Your task to perform on an android device: Do I have any events today? Image 0: 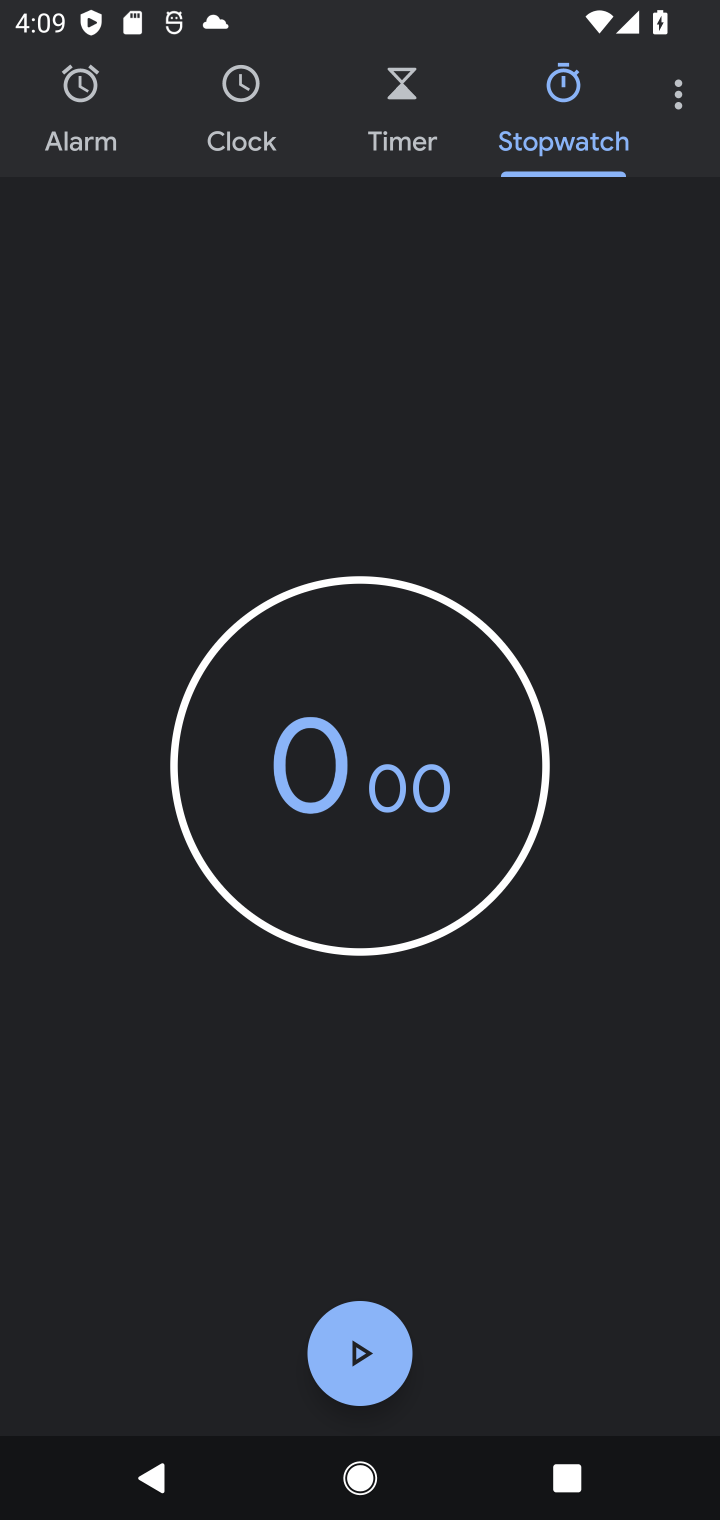
Step 0: press home button
Your task to perform on an android device: Do I have any events today? Image 1: 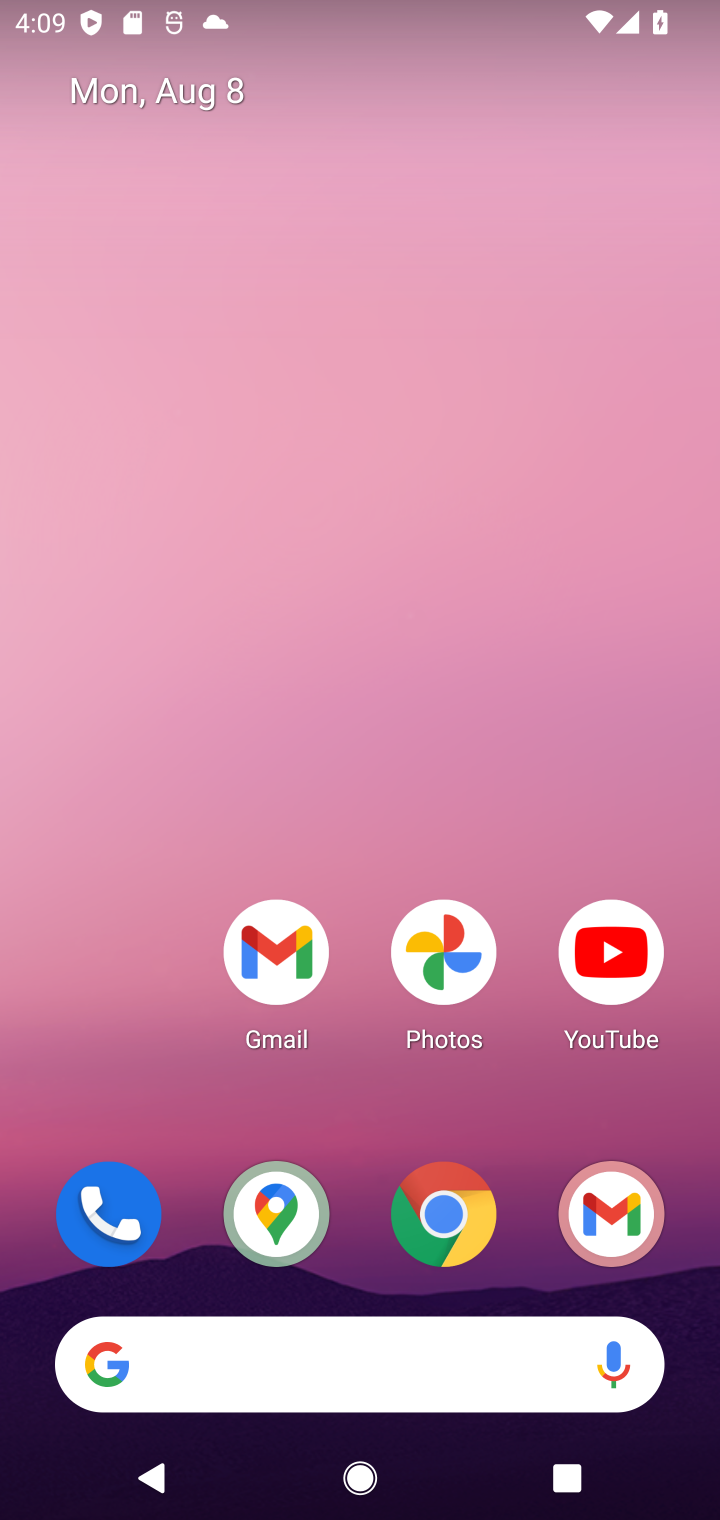
Step 1: drag from (356, 1292) to (359, 481)
Your task to perform on an android device: Do I have any events today? Image 2: 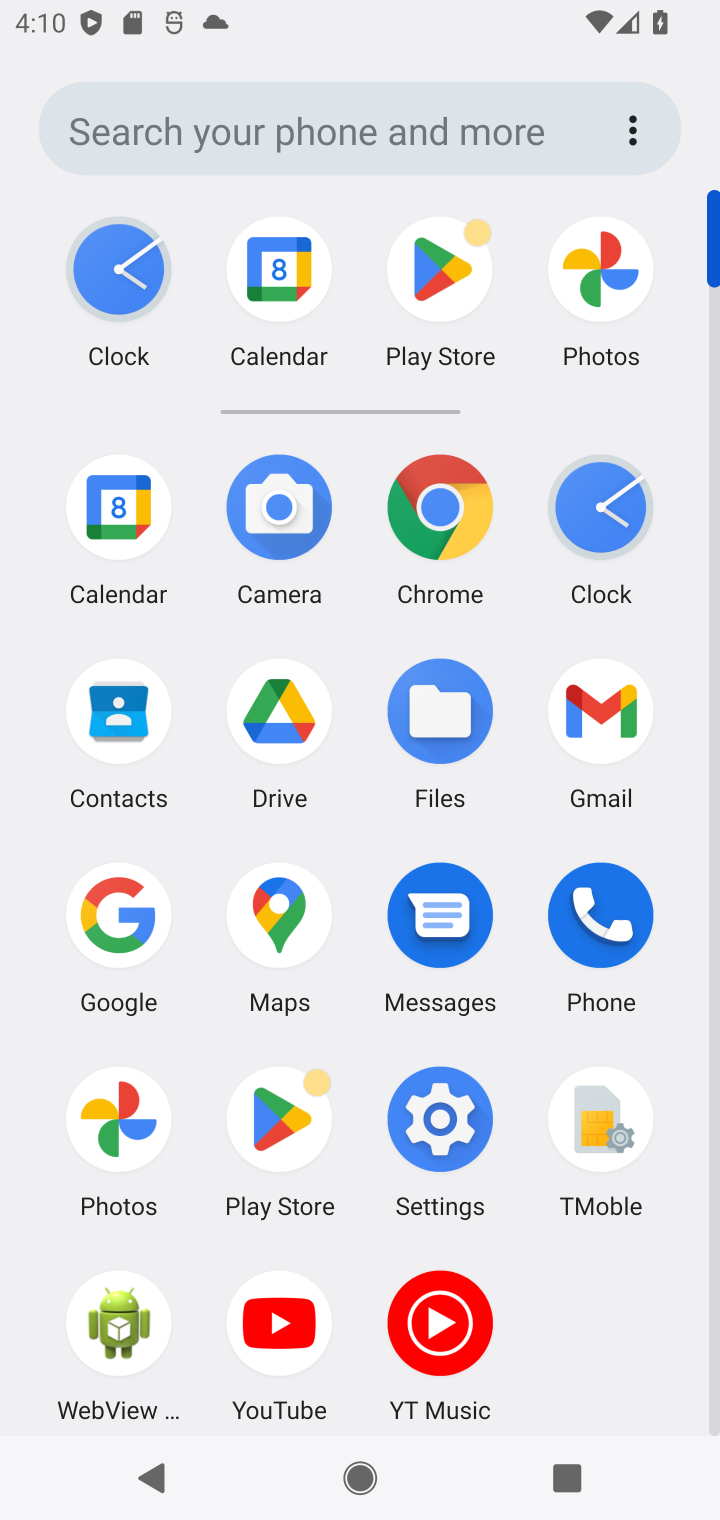
Step 2: click (102, 501)
Your task to perform on an android device: Do I have any events today? Image 3: 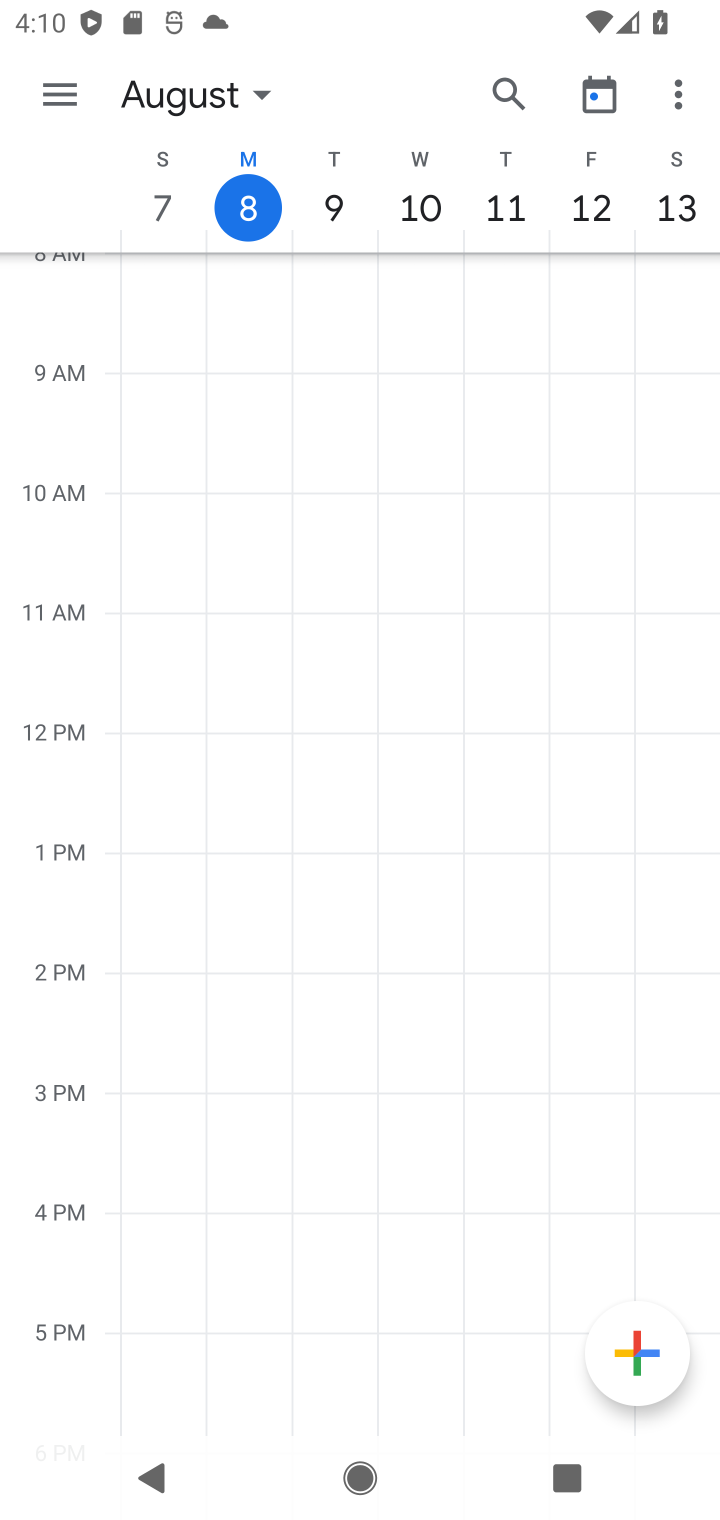
Step 3: click (55, 93)
Your task to perform on an android device: Do I have any events today? Image 4: 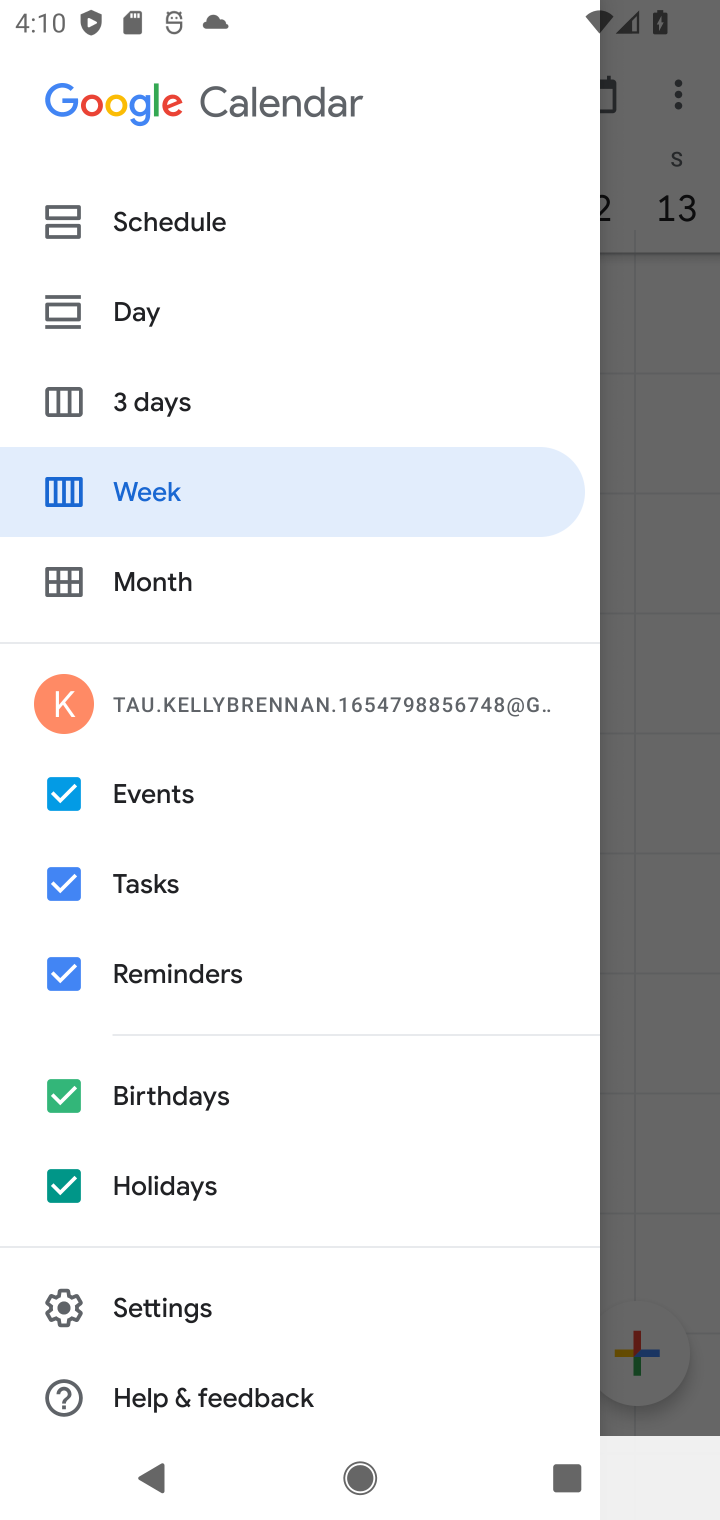
Step 4: click (58, 1183)
Your task to perform on an android device: Do I have any events today? Image 5: 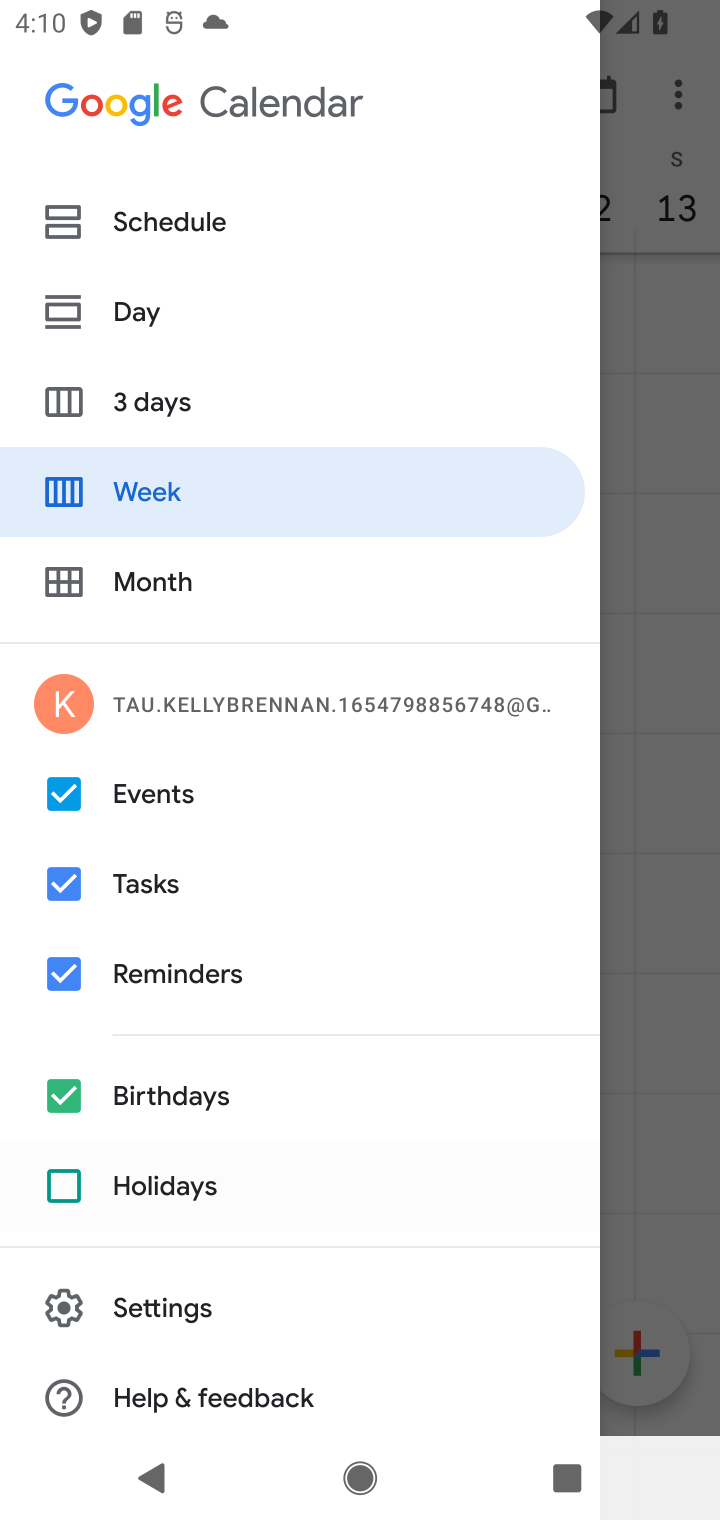
Step 5: click (61, 1095)
Your task to perform on an android device: Do I have any events today? Image 6: 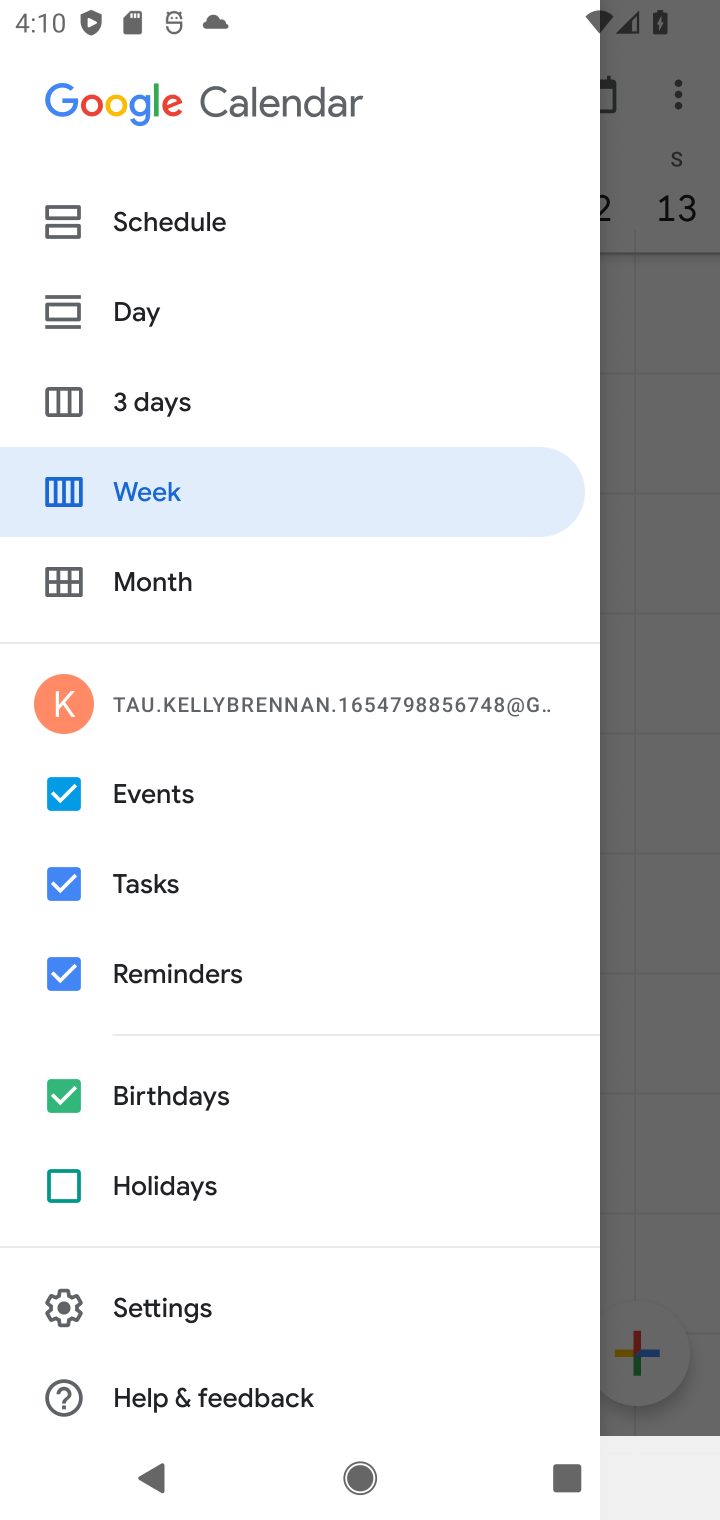
Step 6: click (70, 975)
Your task to perform on an android device: Do I have any events today? Image 7: 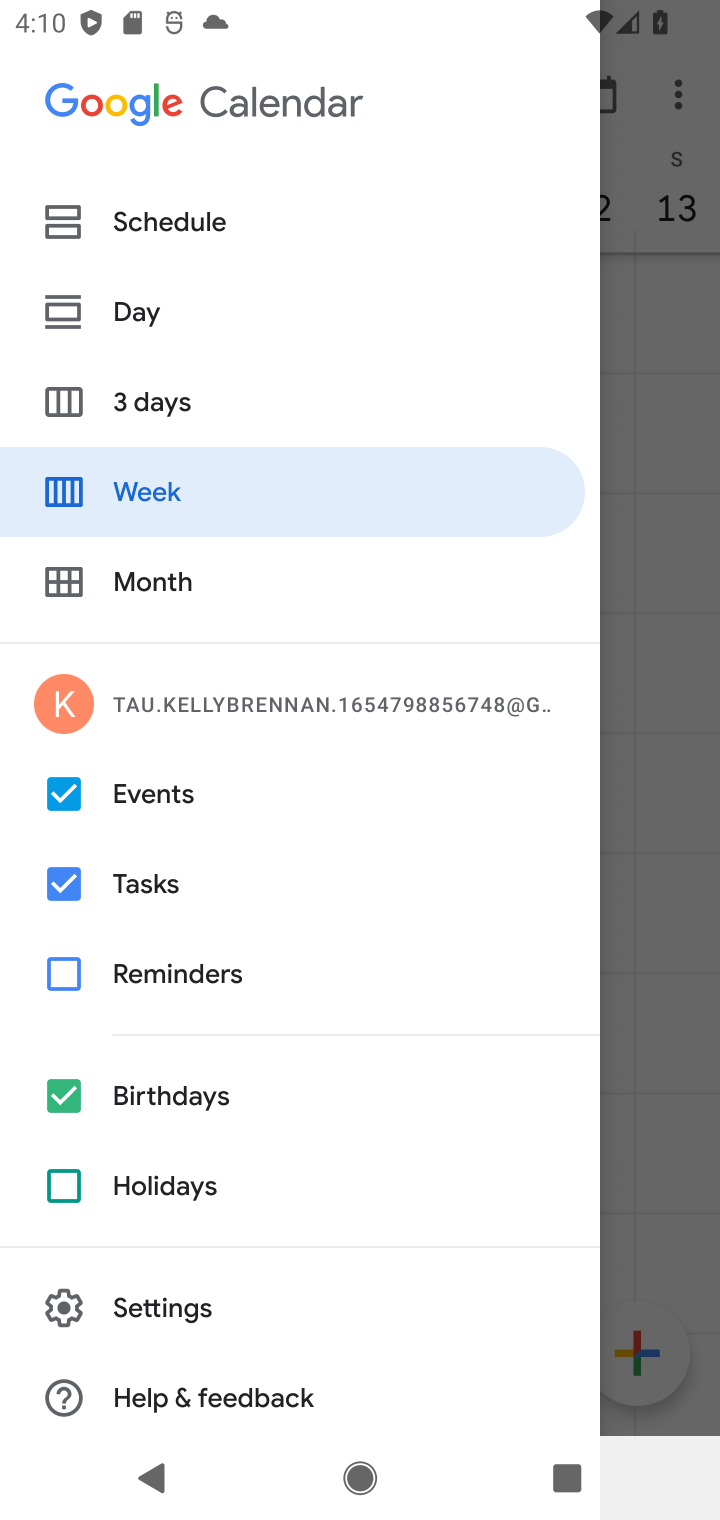
Step 7: click (65, 1103)
Your task to perform on an android device: Do I have any events today? Image 8: 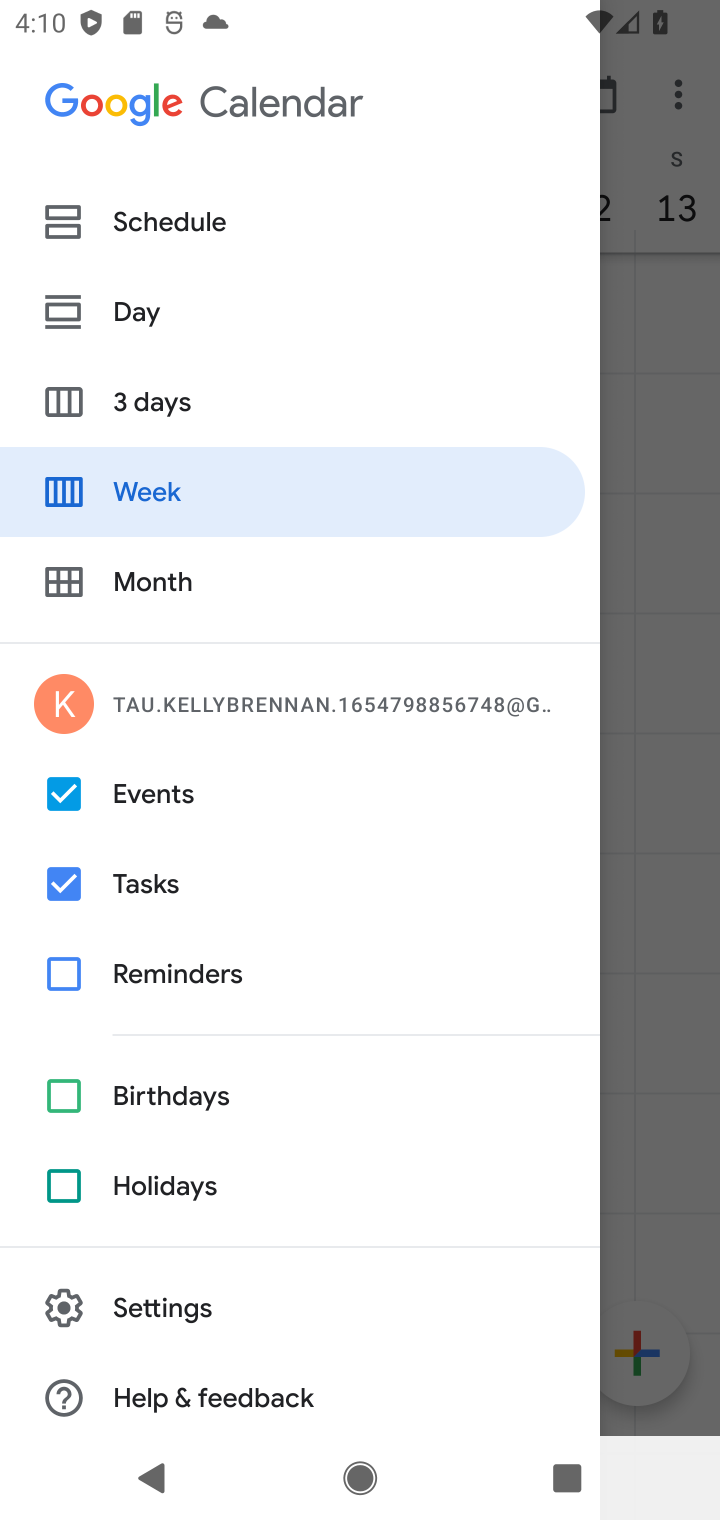
Step 8: click (63, 861)
Your task to perform on an android device: Do I have any events today? Image 9: 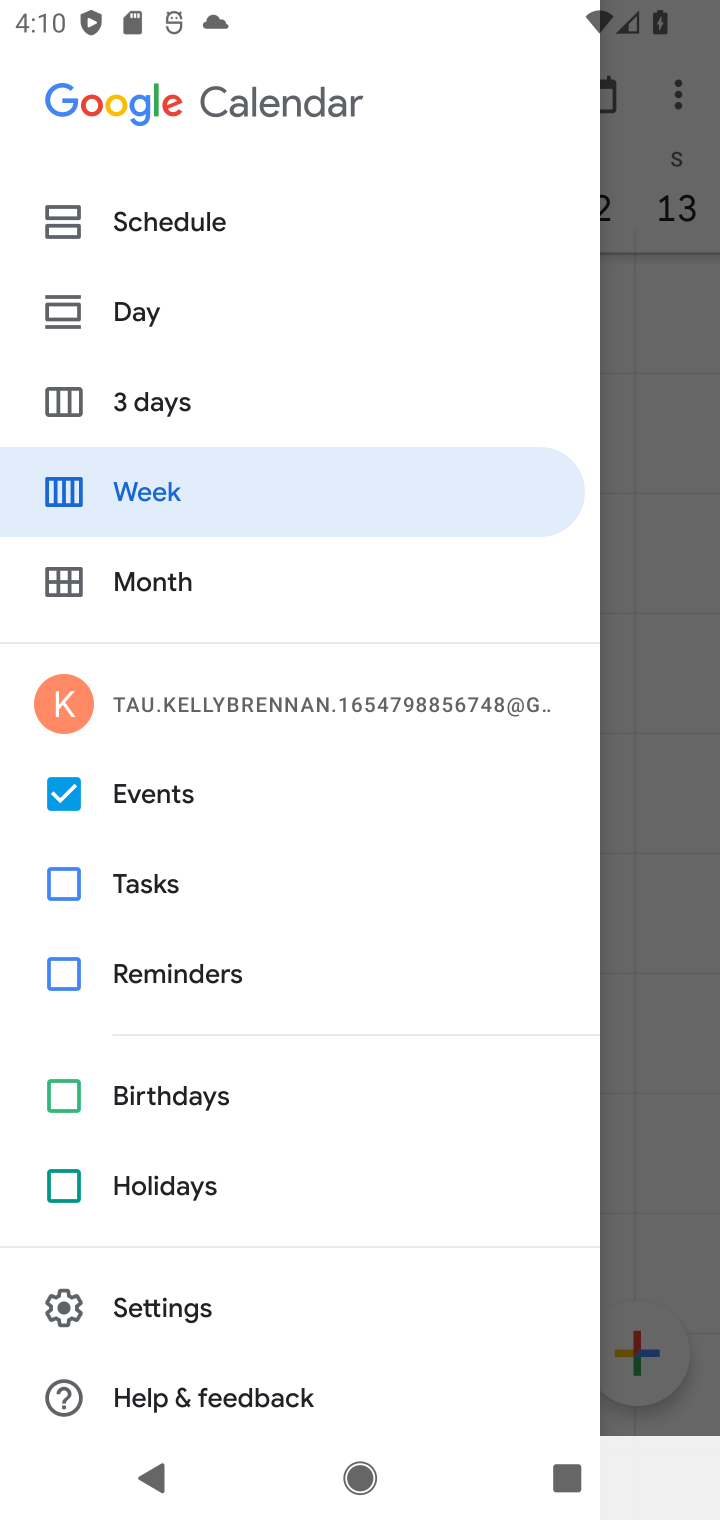
Step 9: click (653, 455)
Your task to perform on an android device: Do I have any events today? Image 10: 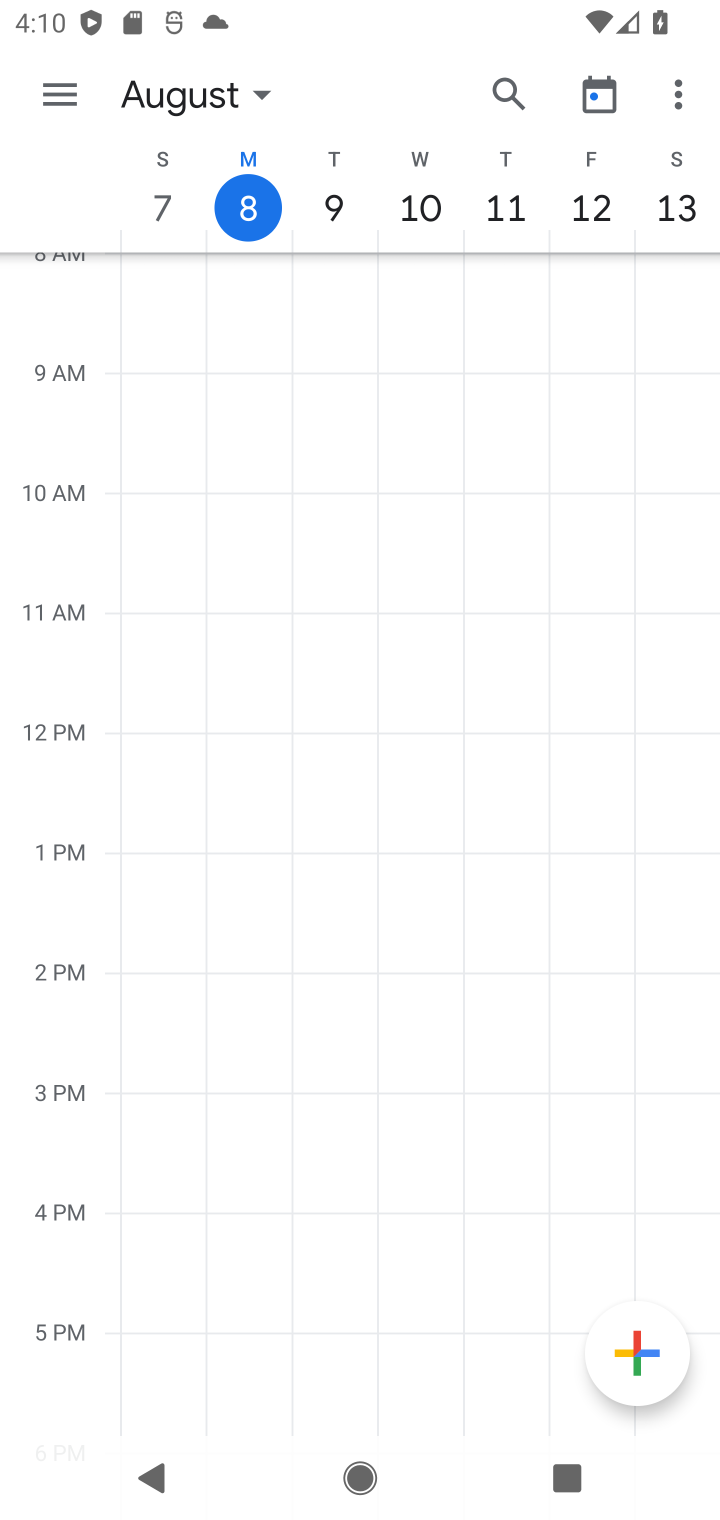
Step 10: click (246, 189)
Your task to perform on an android device: Do I have any events today? Image 11: 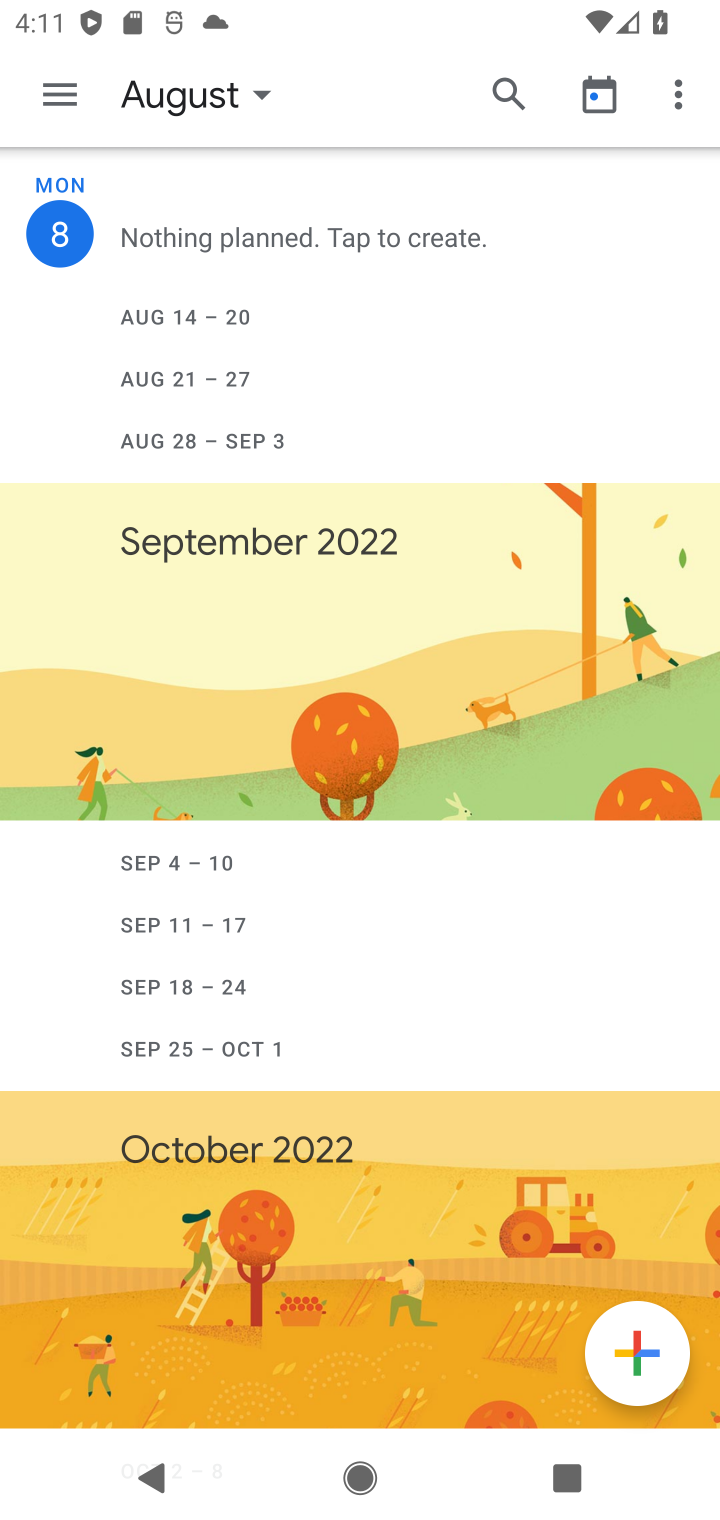
Step 11: task complete